Your task to perform on an android device: set default search engine in the chrome app Image 0: 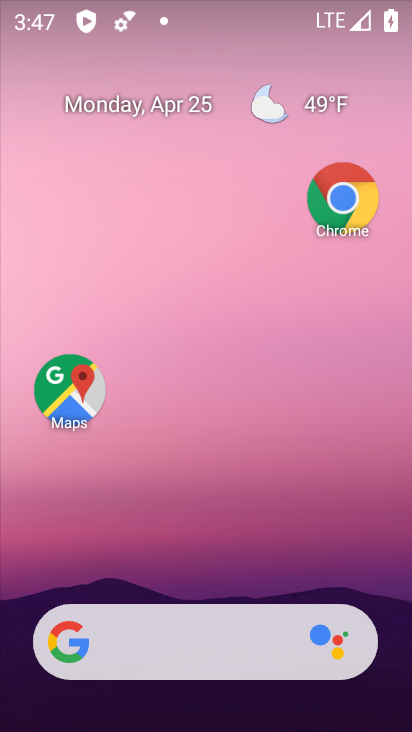
Step 0: drag from (154, 636) to (300, 165)
Your task to perform on an android device: set default search engine in the chrome app Image 1: 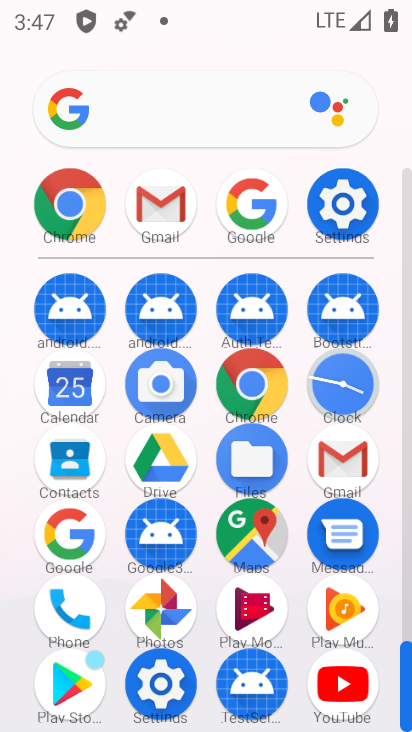
Step 1: click (81, 211)
Your task to perform on an android device: set default search engine in the chrome app Image 2: 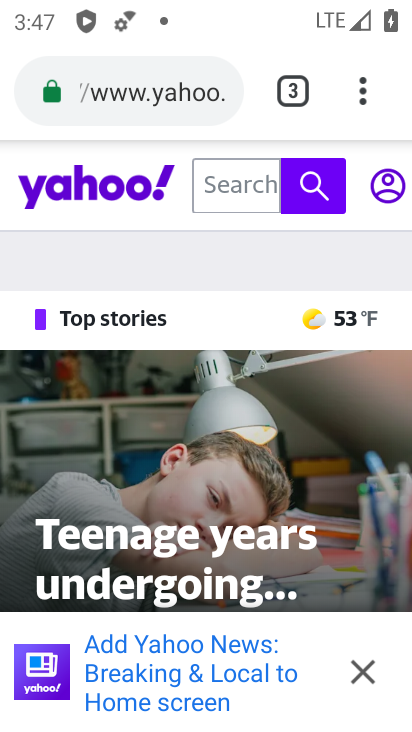
Step 2: drag from (361, 98) to (139, 568)
Your task to perform on an android device: set default search engine in the chrome app Image 3: 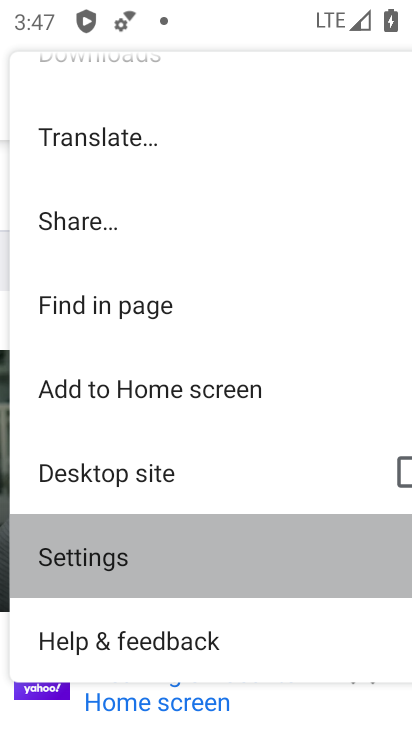
Step 3: click (139, 569)
Your task to perform on an android device: set default search engine in the chrome app Image 4: 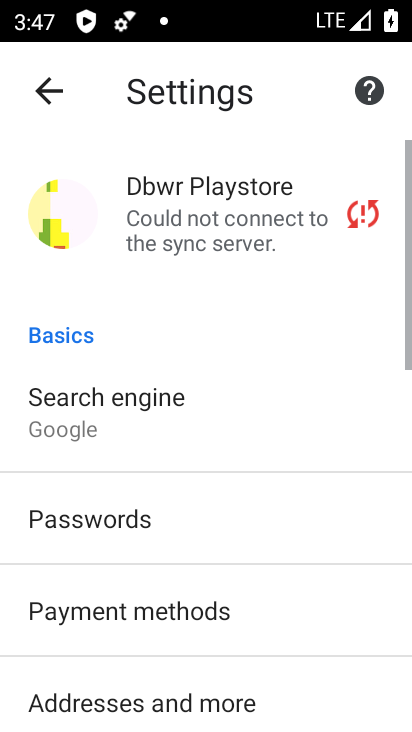
Step 4: click (95, 428)
Your task to perform on an android device: set default search engine in the chrome app Image 5: 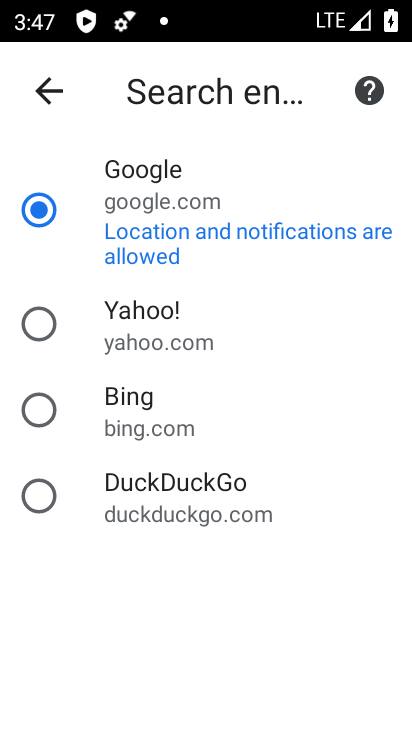
Step 5: click (34, 318)
Your task to perform on an android device: set default search engine in the chrome app Image 6: 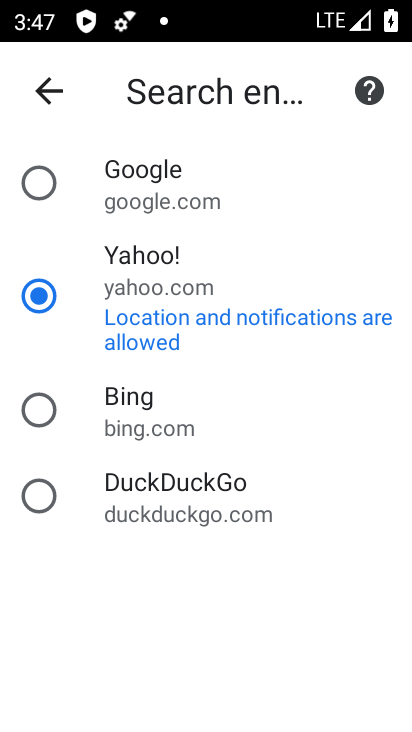
Step 6: task complete